Your task to perform on an android device: Show me the alarms in the clock app Image 0: 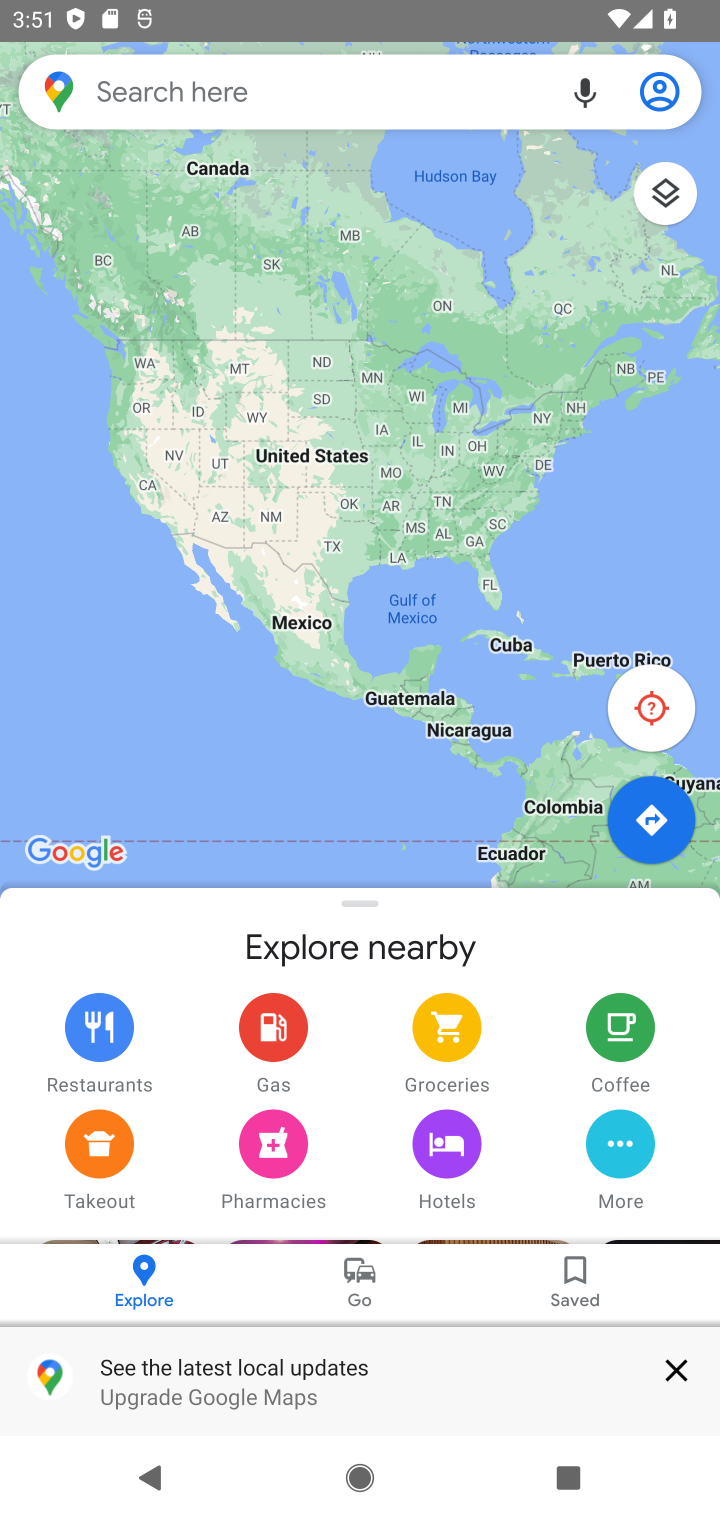
Step 0: press home button
Your task to perform on an android device: Show me the alarms in the clock app Image 1: 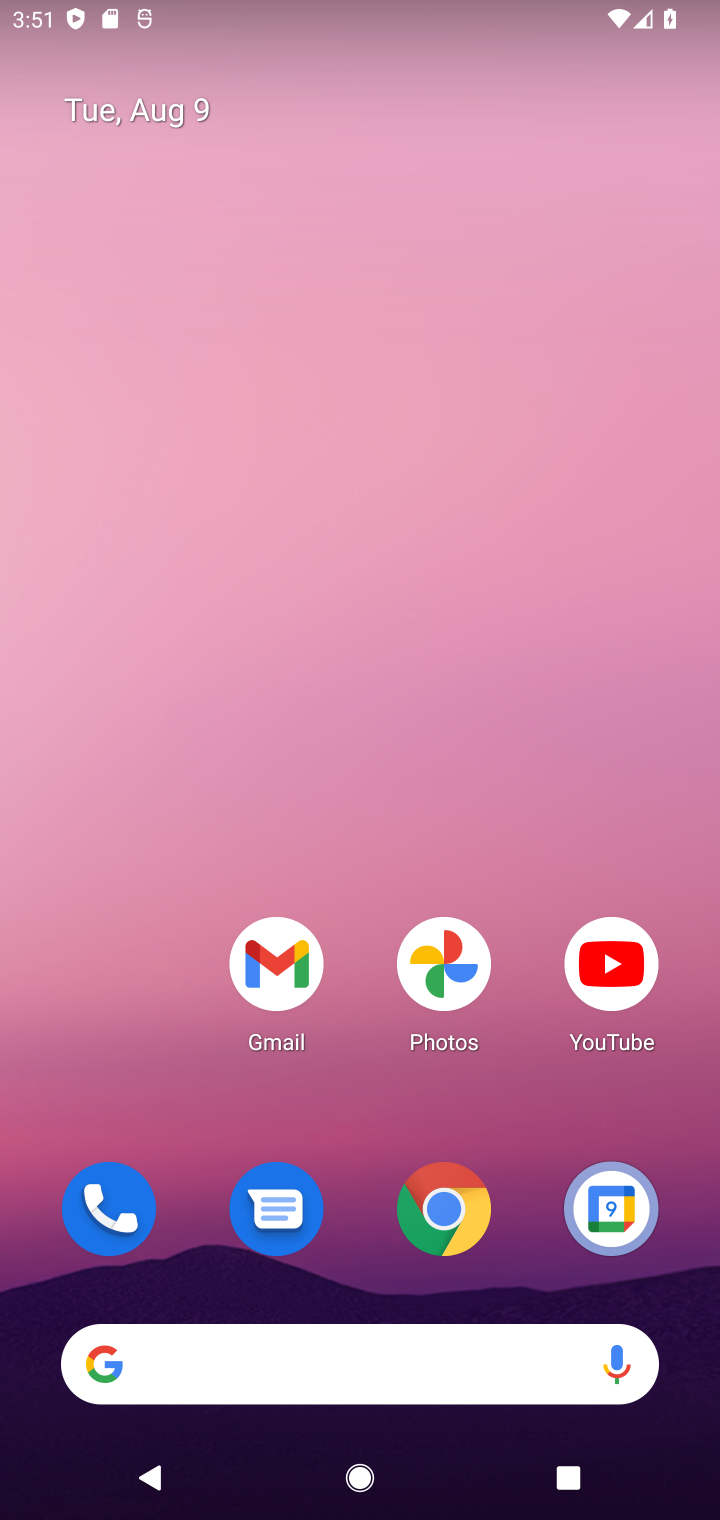
Step 1: drag from (174, 1141) to (129, 169)
Your task to perform on an android device: Show me the alarms in the clock app Image 2: 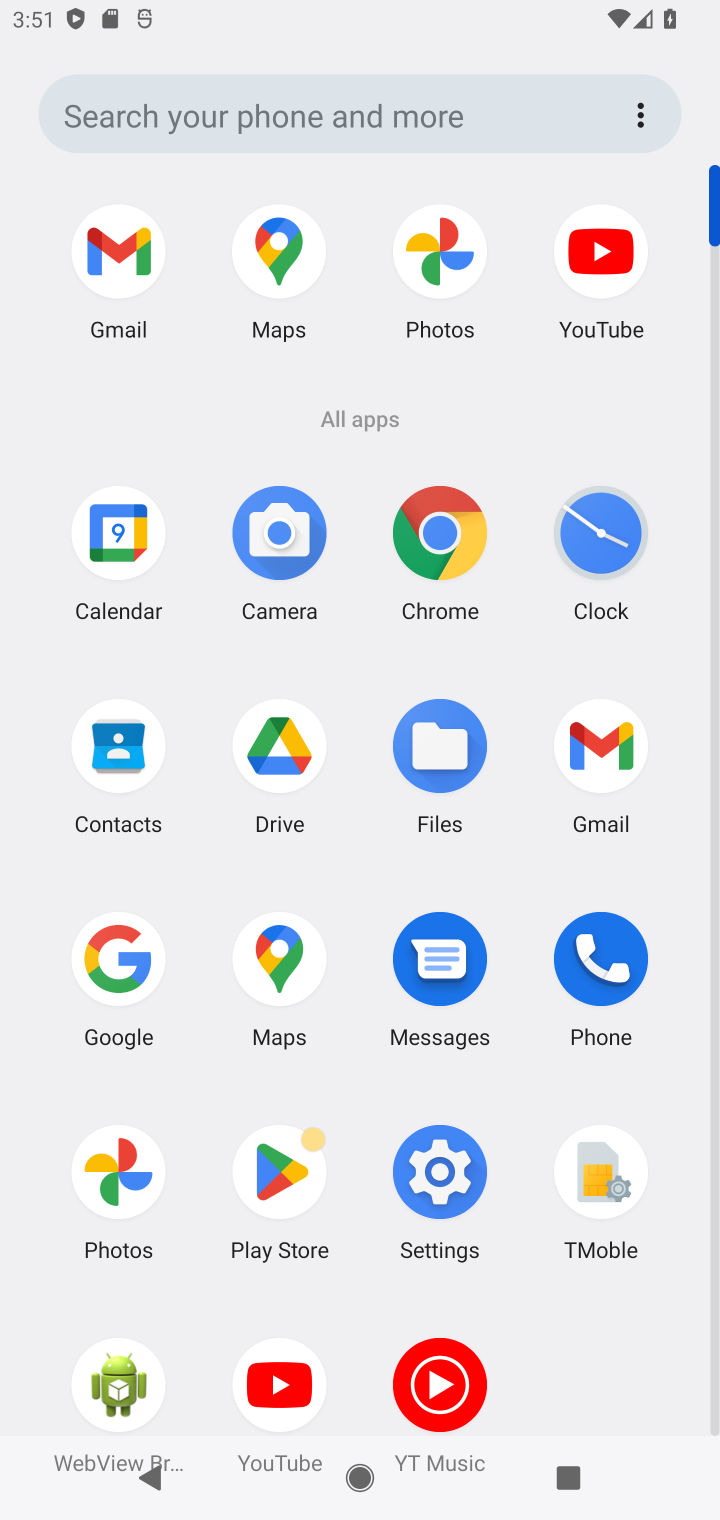
Step 2: click (606, 532)
Your task to perform on an android device: Show me the alarms in the clock app Image 3: 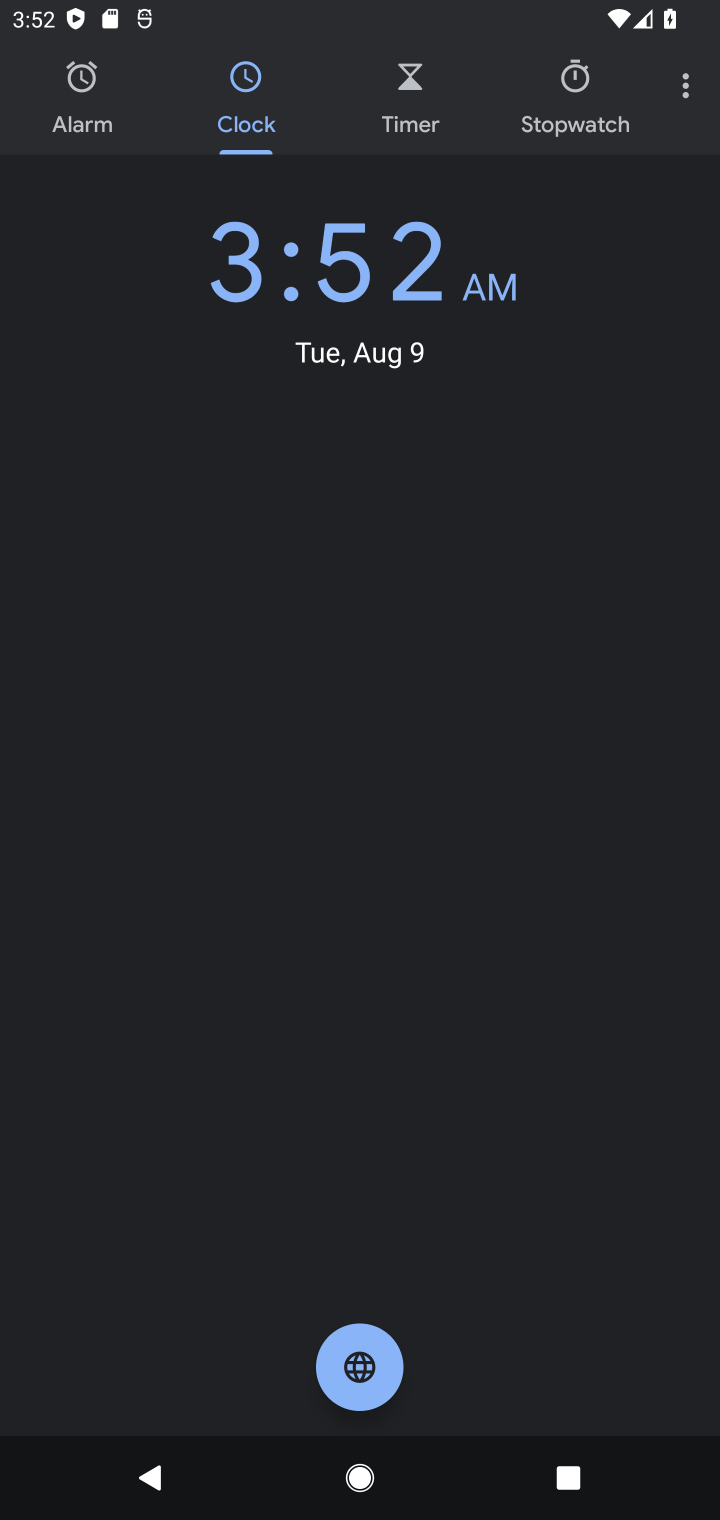
Step 3: click (78, 82)
Your task to perform on an android device: Show me the alarms in the clock app Image 4: 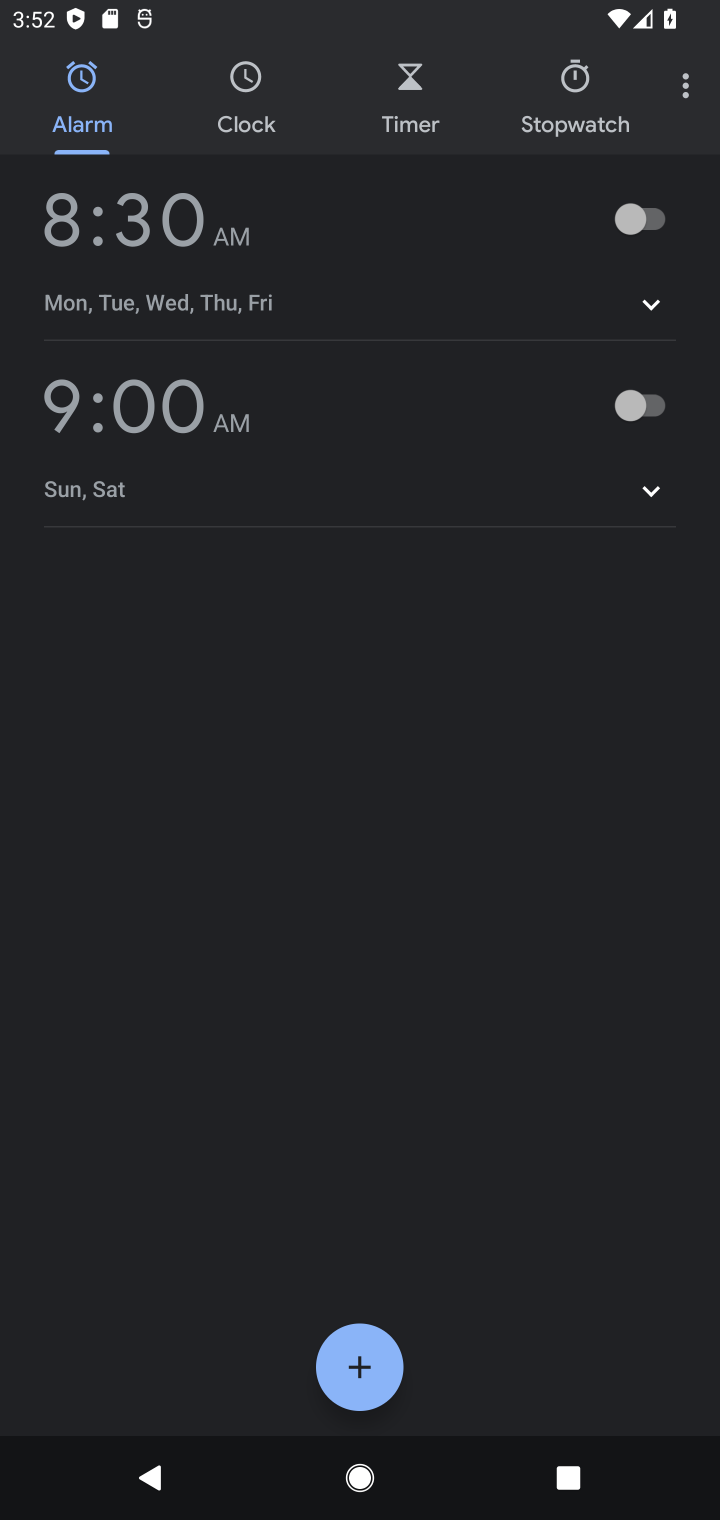
Step 4: task complete